Your task to perform on an android device: Go to Wikipedia Image 0: 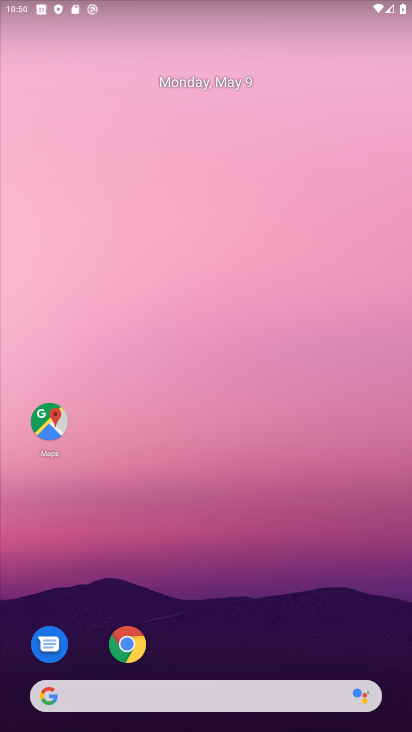
Step 0: click (145, 643)
Your task to perform on an android device: Go to Wikipedia Image 1: 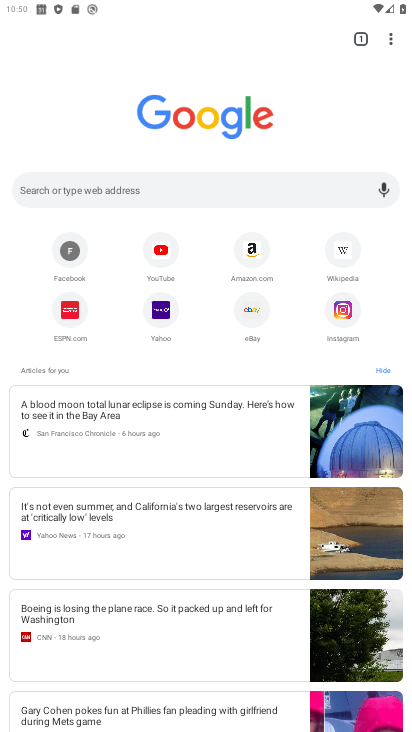
Step 1: click (343, 247)
Your task to perform on an android device: Go to Wikipedia Image 2: 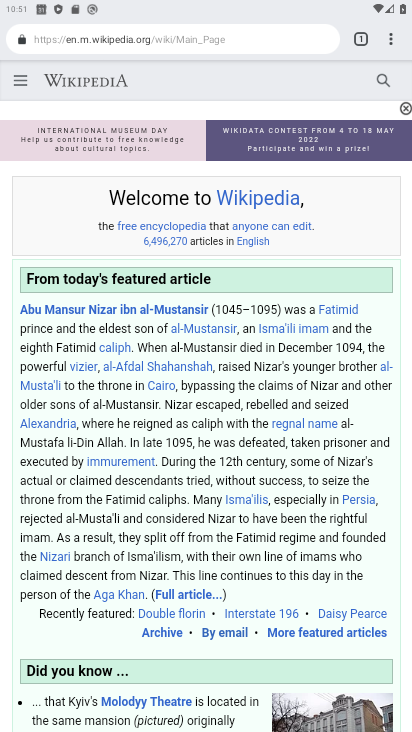
Step 2: task complete